Your task to perform on an android device: choose inbox layout in the gmail app Image 0: 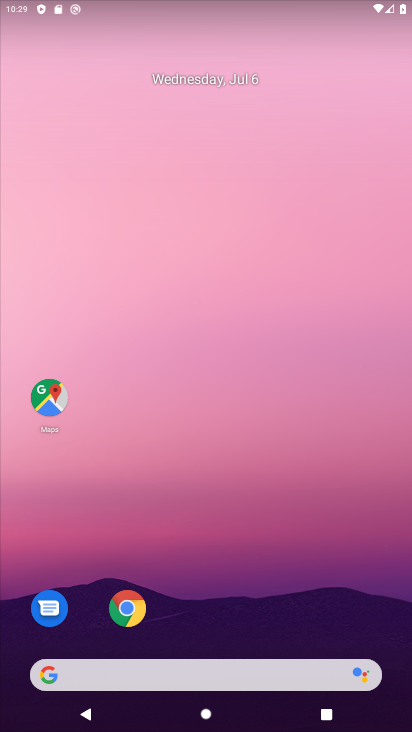
Step 0: drag from (237, 625) to (327, 0)
Your task to perform on an android device: choose inbox layout in the gmail app Image 1: 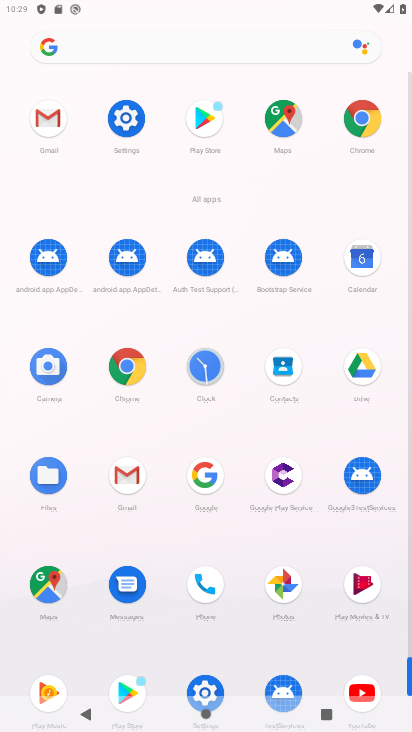
Step 1: click (127, 472)
Your task to perform on an android device: choose inbox layout in the gmail app Image 2: 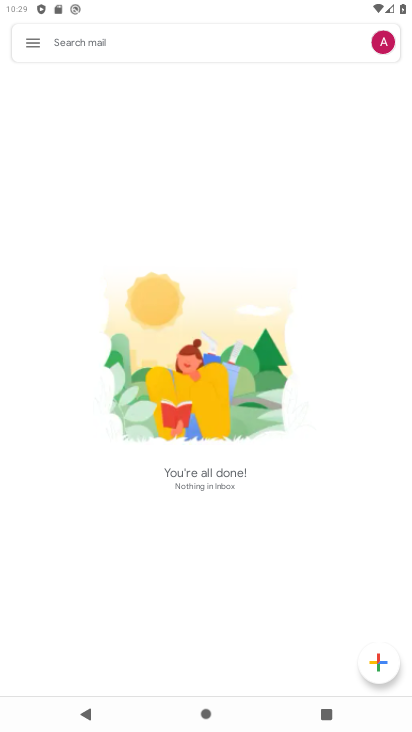
Step 2: click (40, 41)
Your task to perform on an android device: choose inbox layout in the gmail app Image 3: 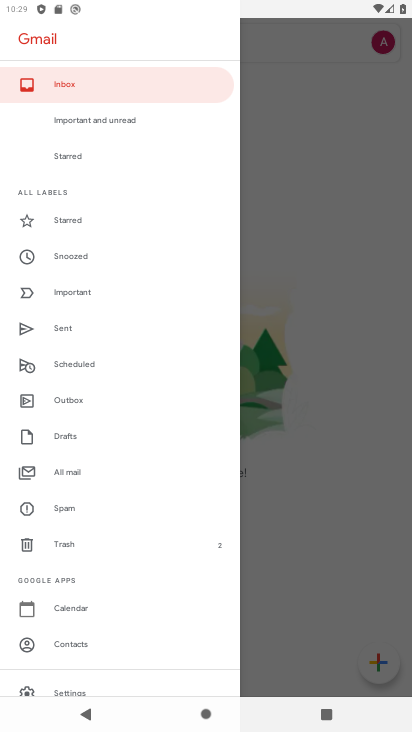
Step 3: drag from (138, 650) to (185, 245)
Your task to perform on an android device: choose inbox layout in the gmail app Image 4: 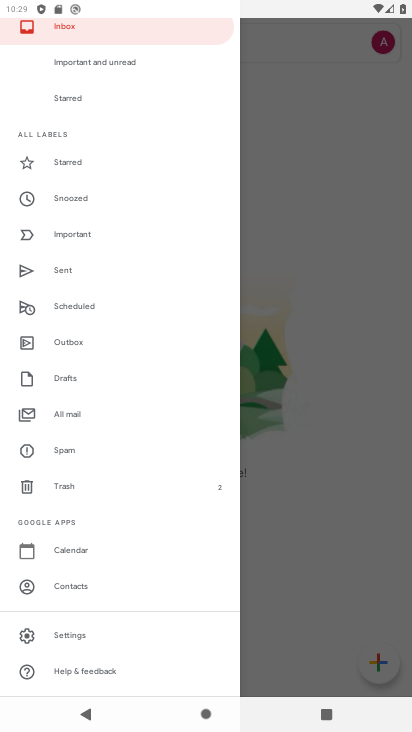
Step 4: click (56, 634)
Your task to perform on an android device: choose inbox layout in the gmail app Image 5: 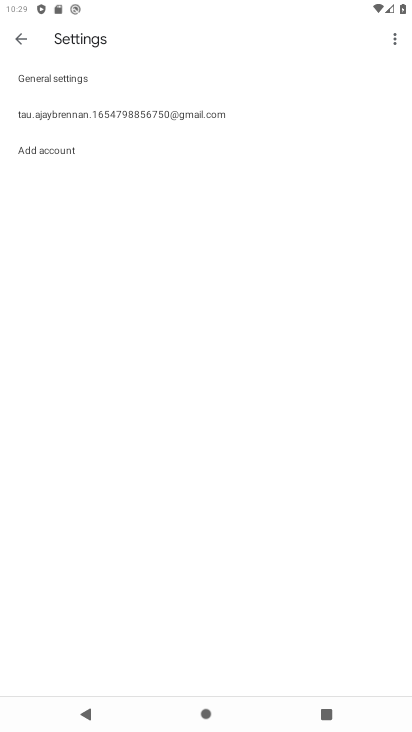
Step 5: click (109, 113)
Your task to perform on an android device: choose inbox layout in the gmail app Image 6: 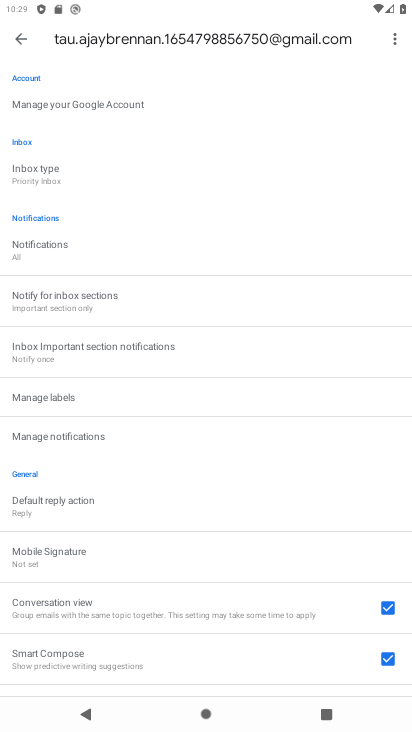
Step 6: click (36, 169)
Your task to perform on an android device: choose inbox layout in the gmail app Image 7: 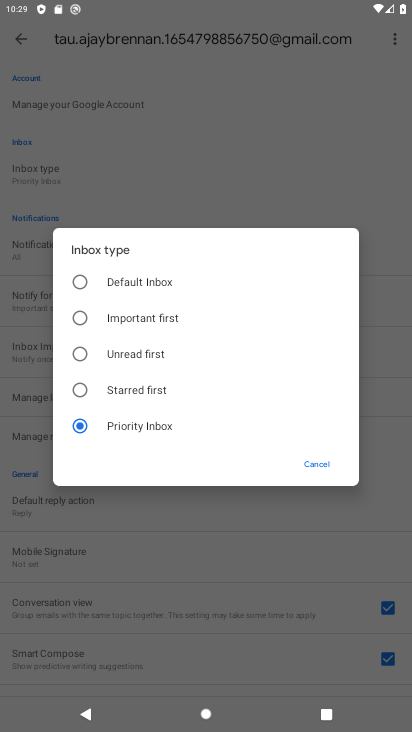
Step 7: click (111, 316)
Your task to perform on an android device: choose inbox layout in the gmail app Image 8: 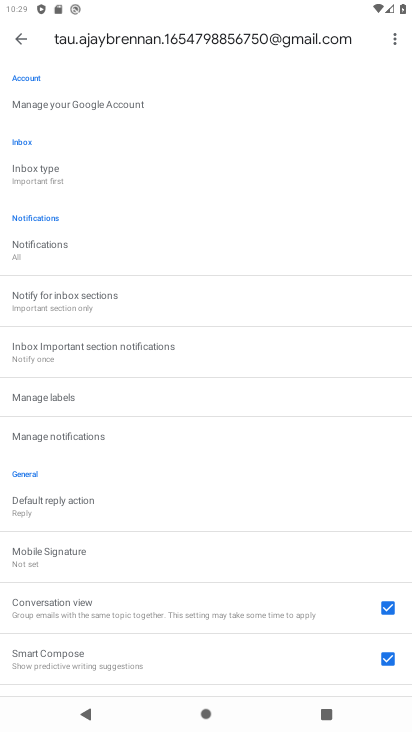
Step 8: task complete